Your task to perform on an android device: Clear the cart on amazon. Add "razer deathadder" to the cart on amazon Image 0: 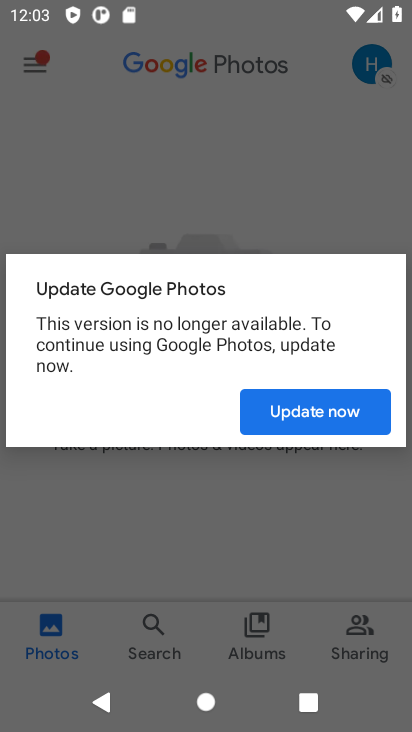
Step 0: press home button
Your task to perform on an android device: Clear the cart on amazon. Add "razer deathadder" to the cart on amazon Image 1: 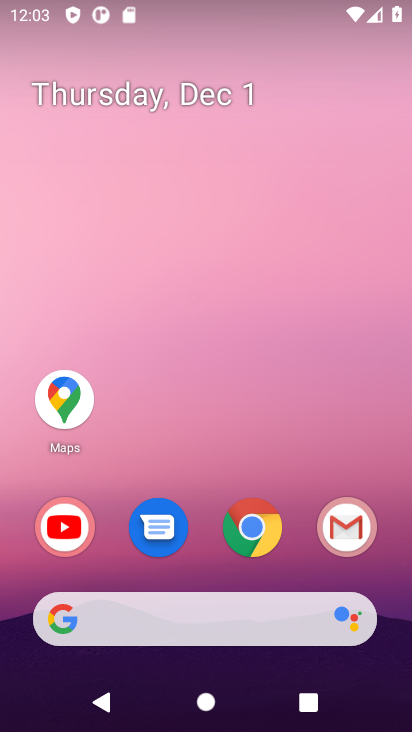
Step 1: click (250, 531)
Your task to perform on an android device: Clear the cart on amazon. Add "razer deathadder" to the cart on amazon Image 2: 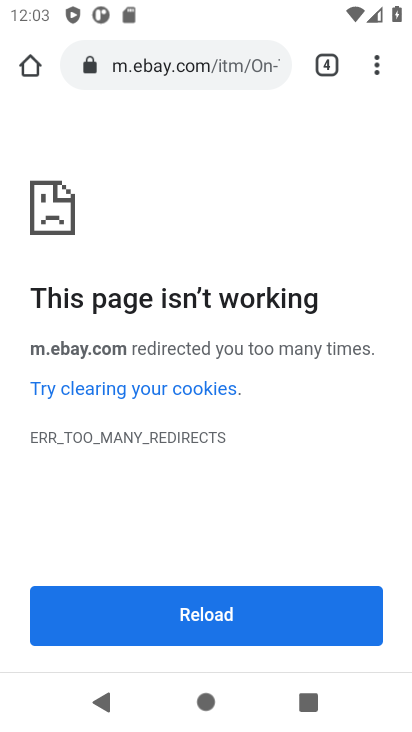
Step 2: click (165, 59)
Your task to perform on an android device: Clear the cart on amazon. Add "razer deathadder" to the cart on amazon Image 3: 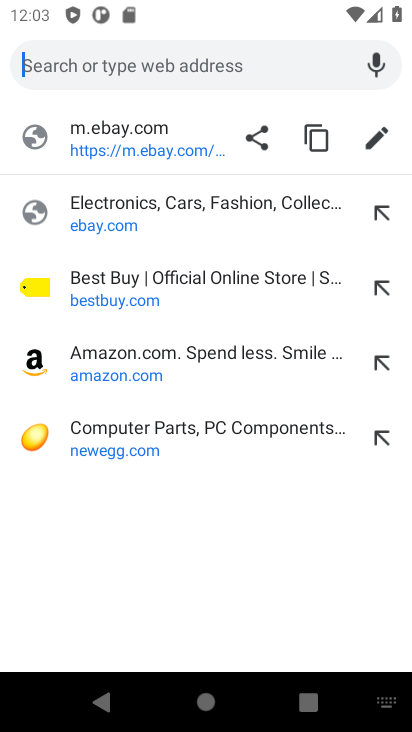
Step 3: click (99, 361)
Your task to perform on an android device: Clear the cart on amazon. Add "razer deathadder" to the cart on amazon Image 4: 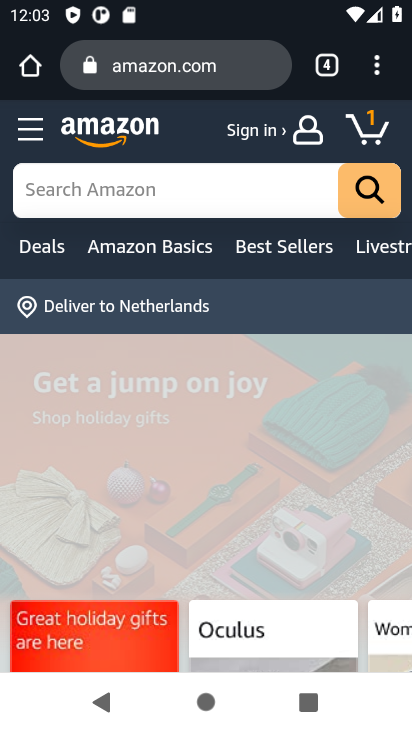
Step 4: click (358, 127)
Your task to perform on an android device: Clear the cart on amazon. Add "razer deathadder" to the cart on amazon Image 5: 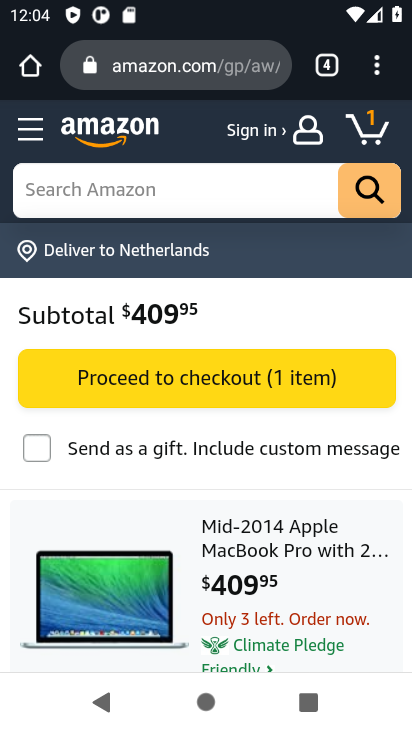
Step 5: drag from (376, 537) to (373, 323)
Your task to perform on an android device: Clear the cart on amazon. Add "razer deathadder" to the cart on amazon Image 6: 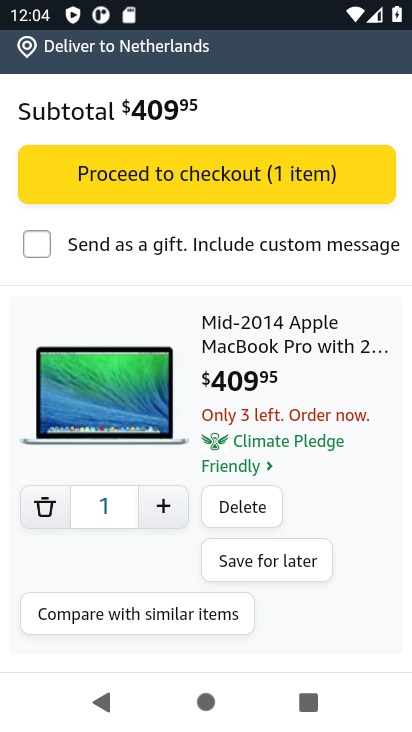
Step 6: click (256, 502)
Your task to perform on an android device: Clear the cart on amazon. Add "razer deathadder" to the cart on amazon Image 7: 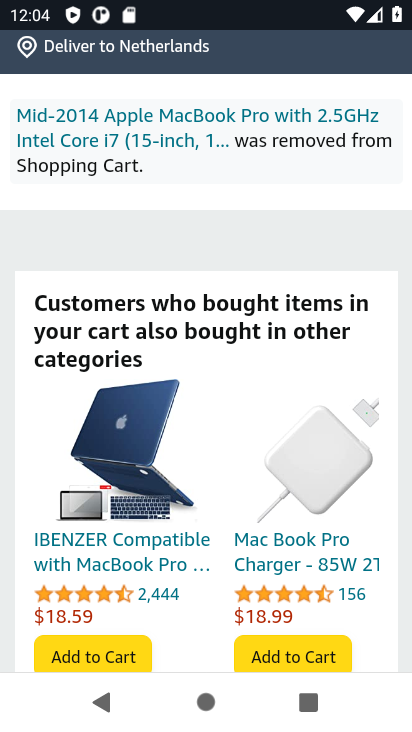
Step 7: drag from (237, 210) to (248, 405)
Your task to perform on an android device: Clear the cart on amazon. Add "razer deathadder" to the cart on amazon Image 8: 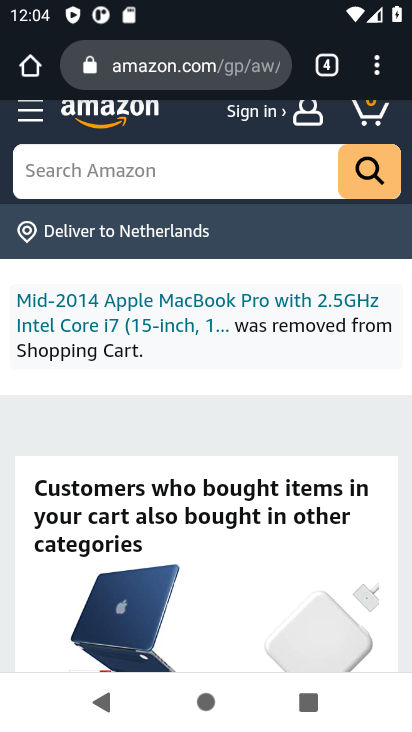
Step 8: click (111, 166)
Your task to perform on an android device: Clear the cart on amazon. Add "razer deathadder" to the cart on amazon Image 9: 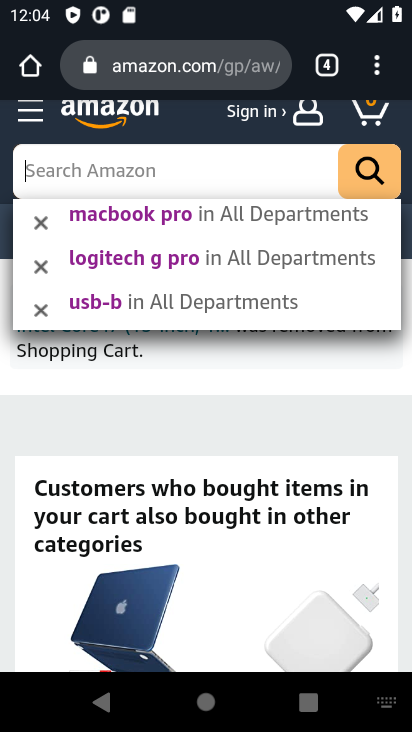
Step 9: type "razer deathadder"
Your task to perform on an android device: Clear the cart on amazon. Add "razer deathadder" to the cart on amazon Image 10: 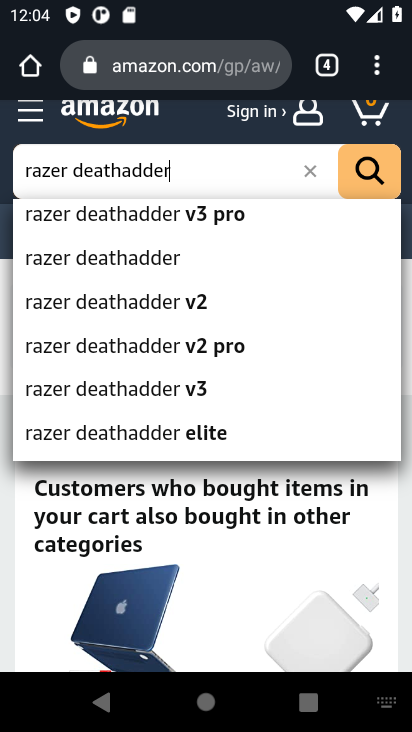
Step 10: click (154, 266)
Your task to perform on an android device: Clear the cart on amazon. Add "razer deathadder" to the cart on amazon Image 11: 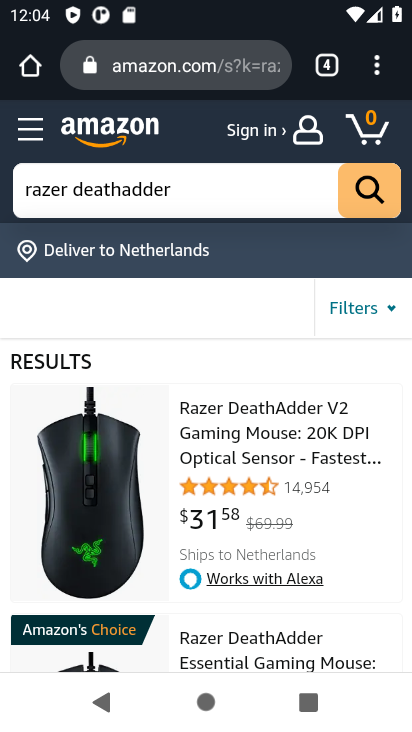
Step 11: drag from (344, 519) to (347, 341)
Your task to perform on an android device: Clear the cart on amazon. Add "razer deathadder" to the cart on amazon Image 12: 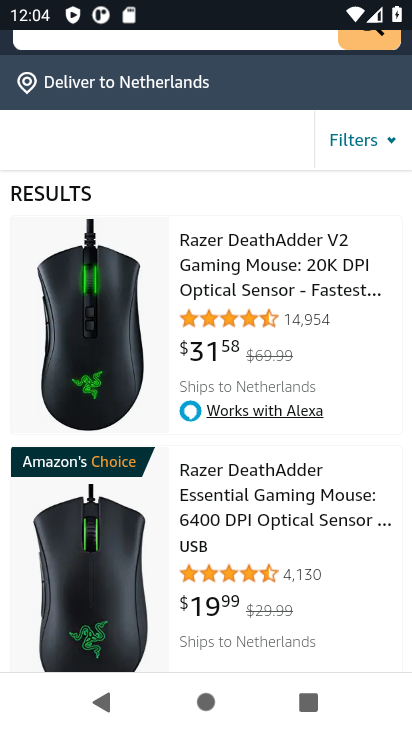
Step 12: click (210, 288)
Your task to perform on an android device: Clear the cart on amazon. Add "razer deathadder" to the cart on amazon Image 13: 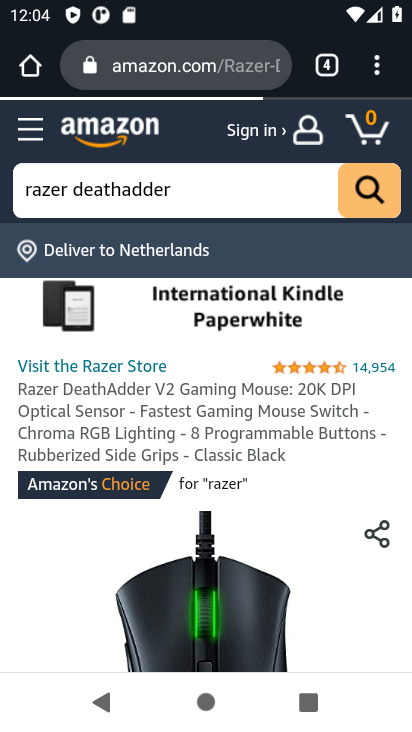
Step 13: drag from (287, 555) to (259, 185)
Your task to perform on an android device: Clear the cart on amazon. Add "razer deathadder" to the cart on amazon Image 14: 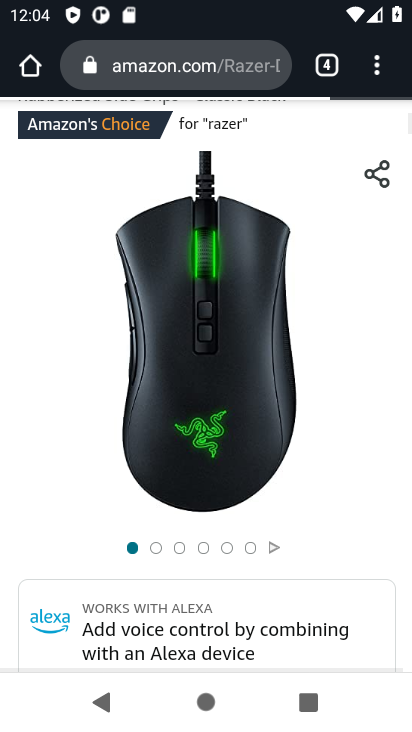
Step 14: drag from (279, 479) to (251, 106)
Your task to perform on an android device: Clear the cart on amazon. Add "razer deathadder" to the cart on amazon Image 15: 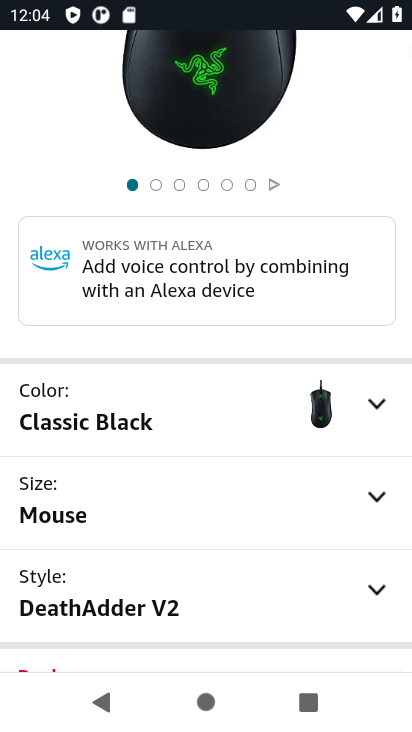
Step 15: drag from (237, 434) to (215, 72)
Your task to perform on an android device: Clear the cart on amazon. Add "razer deathadder" to the cart on amazon Image 16: 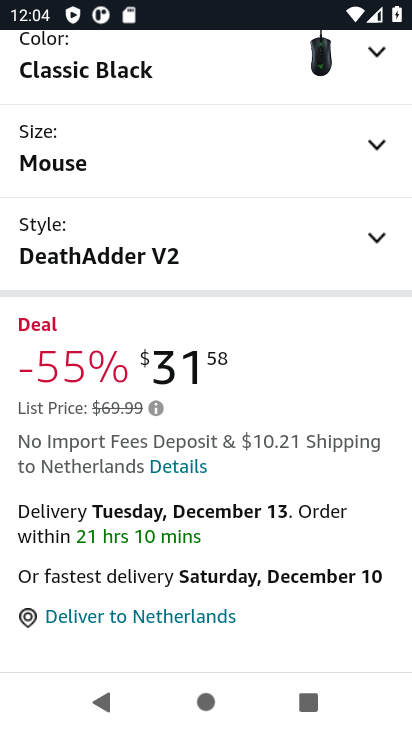
Step 16: drag from (224, 402) to (208, 68)
Your task to perform on an android device: Clear the cart on amazon. Add "razer deathadder" to the cart on amazon Image 17: 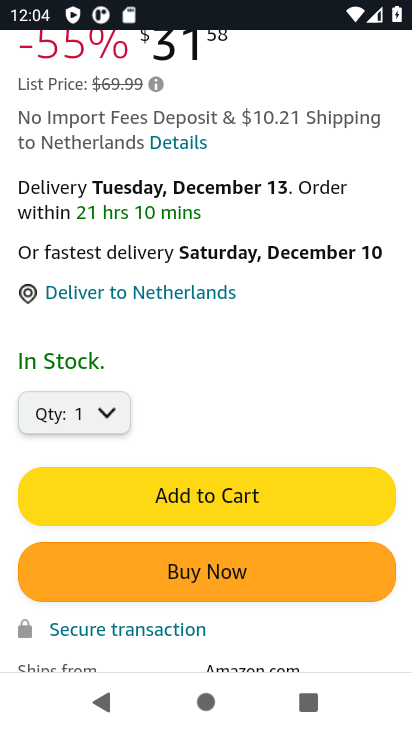
Step 17: click (180, 492)
Your task to perform on an android device: Clear the cart on amazon. Add "razer deathadder" to the cart on amazon Image 18: 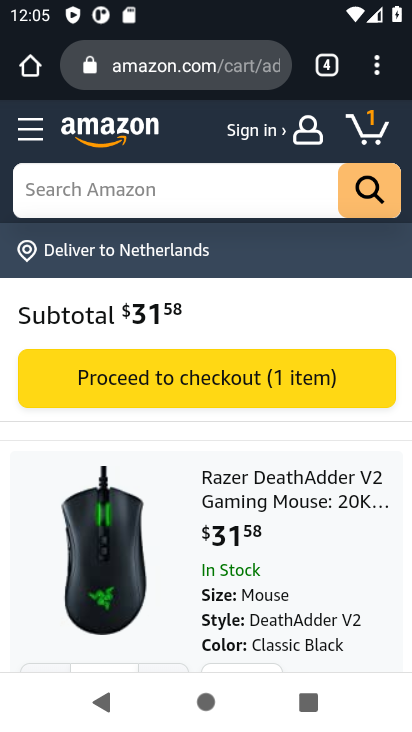
Step 18: task complete